Your task to perform on an android device: set default search engine in the chrome app Image 0: 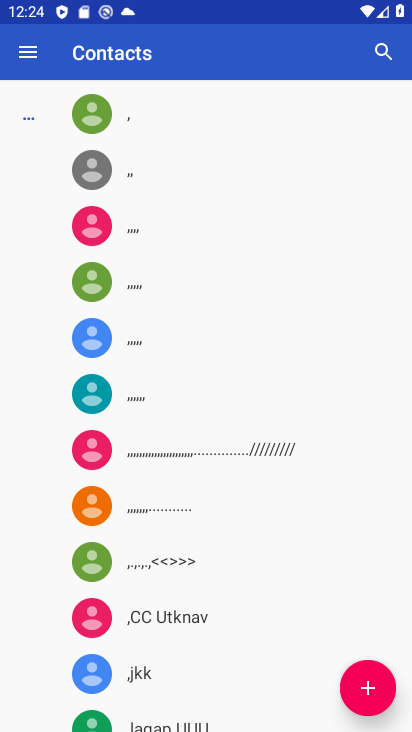
Step 0: press back button
Your task to perform on an android device: set default search engine in the chrome app Image 1: 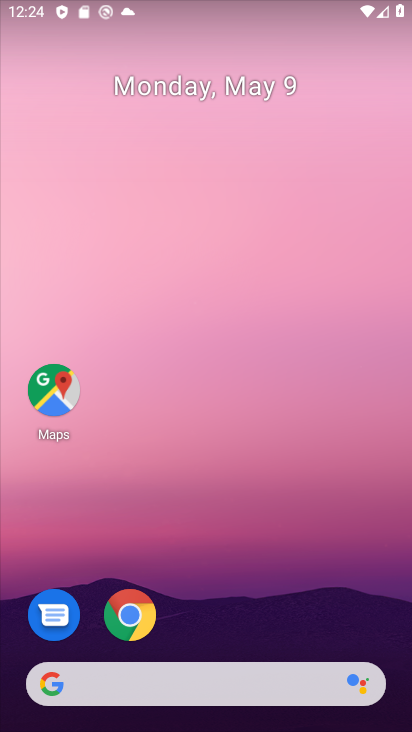
Step 1: click (130, 616)
Your task to perform on an android device: set default search engine in the chrome app Image 2: 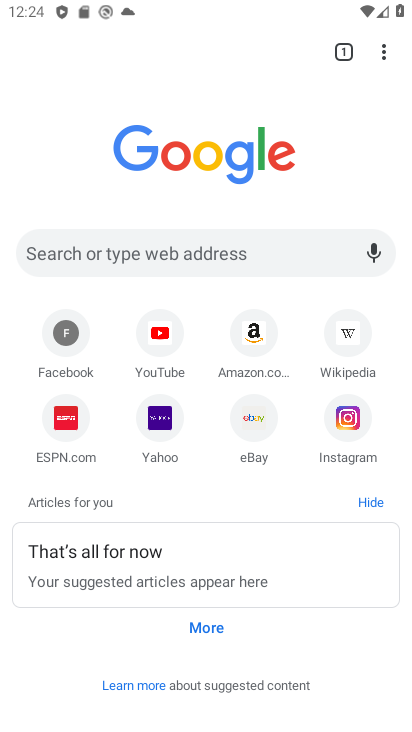
Step 2: click (382, 54)
Your task to perform on an android device: set default search engine in the chrome app Image 3: 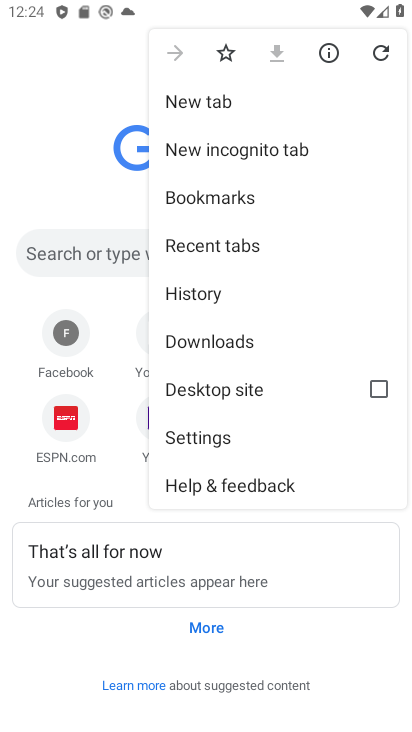
Step 3: click (215, 437)
Your task to perform on an android device: set default search engine in the chrome app Image 4: 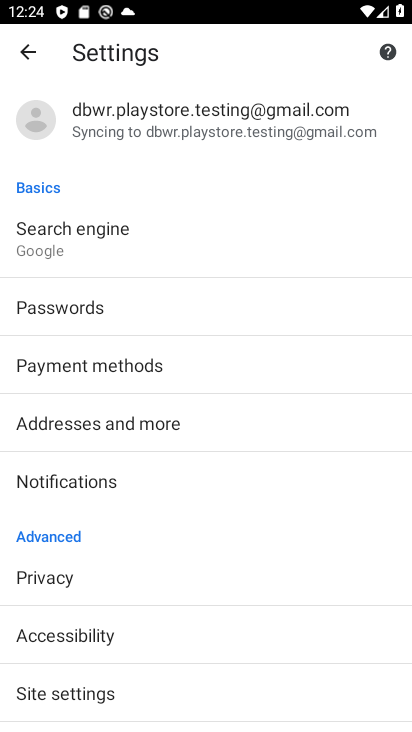
Step 4: click (94, 223)
Your task to perform on an android device: set default search engine in the chrome app Image 5: 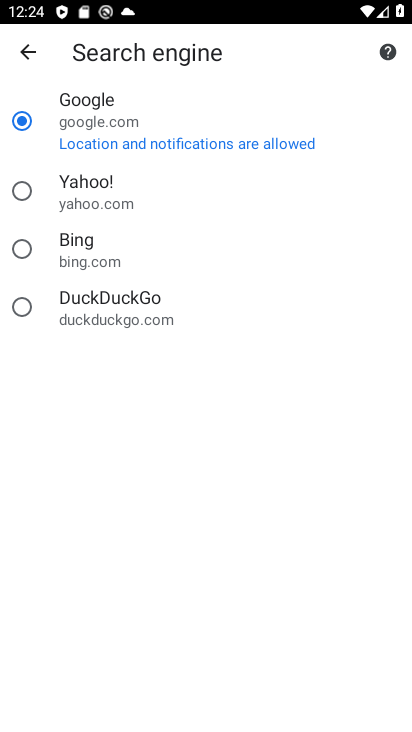
Step 5: click (24, 121)
Your task to perform on an android device: set default search engine in the chrome app Image 6: 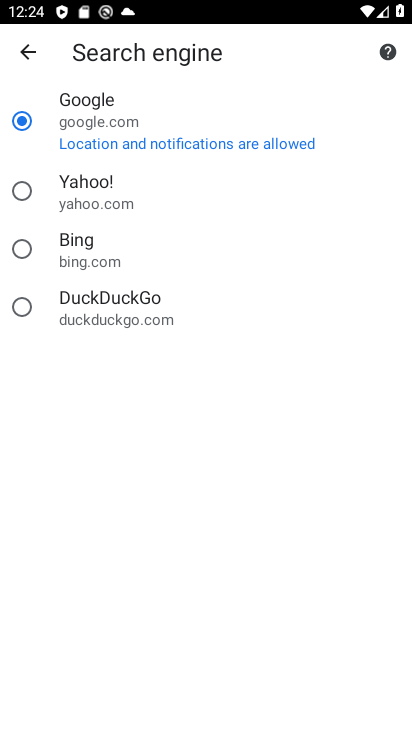
Step 6: task complete